Your task to perform on an android device: check google app version Image 0: 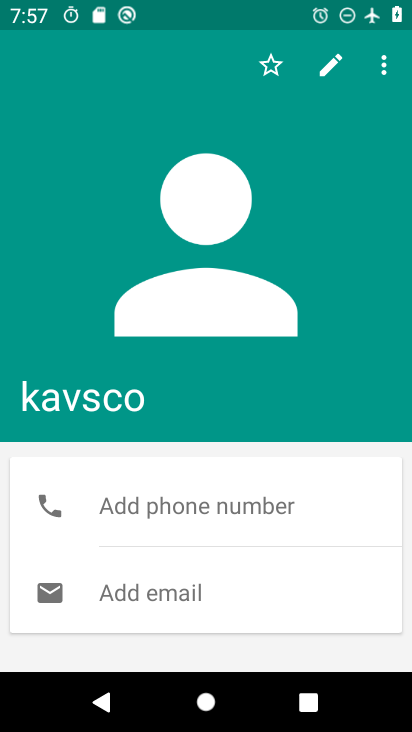
Step 0: press home button
Your task to perform on an android device: check google app version Image 1: 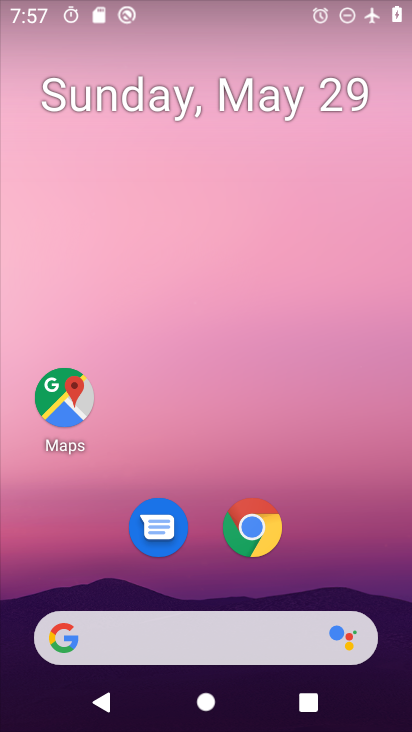
Step 1: drag from (403, 636) to (323, 10)
Your task to perform on an android device: check google app version Image 2: 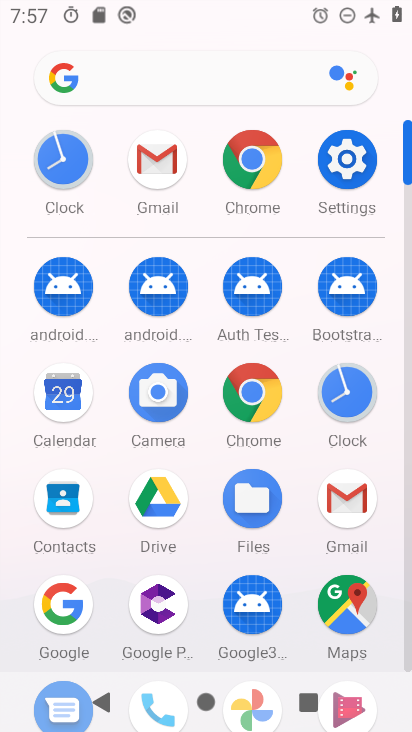
Step 2: click (46, 614)
Your task to perform on an android device: check google app version Image 3: 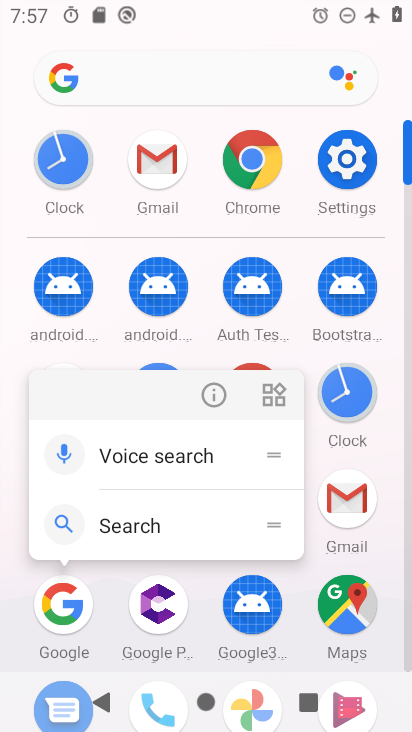
Step 3: click (204, 401)
Your task to perform on an android device: check google app version Image 4: 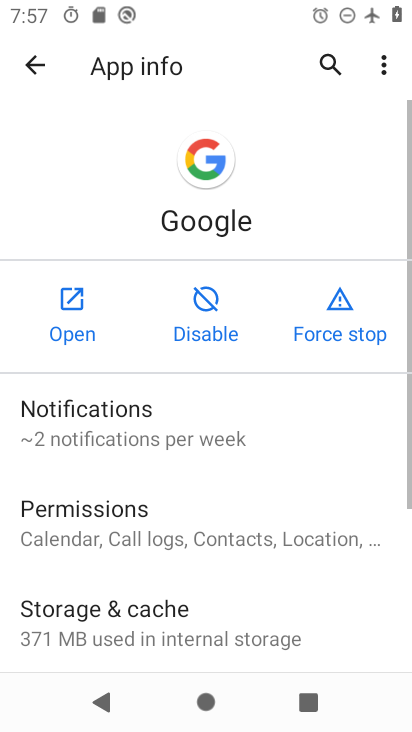
Step 4: drag from (194, 575) to (259, 50)
Your task to perform on an android device: check google app version Image 5: 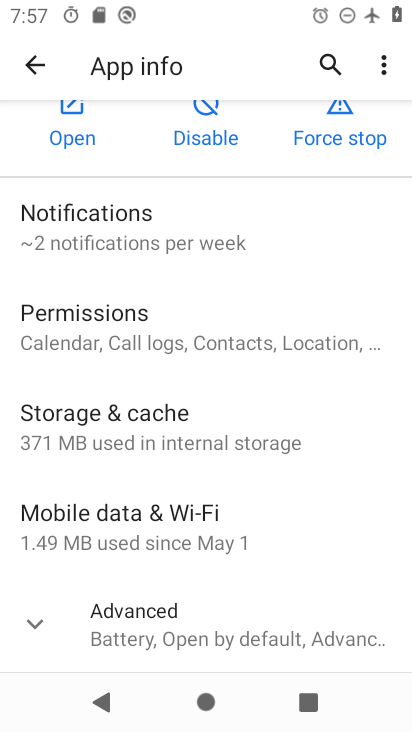
Step 5: click (118, 623)
Your task to perform on an android device: check google app version Image 6: 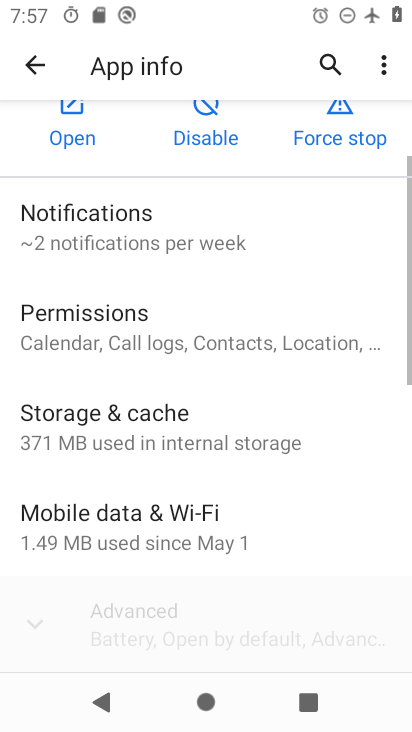
Step 6: task complete